Your task to perform on an android device: Open Google Maps Image 0: 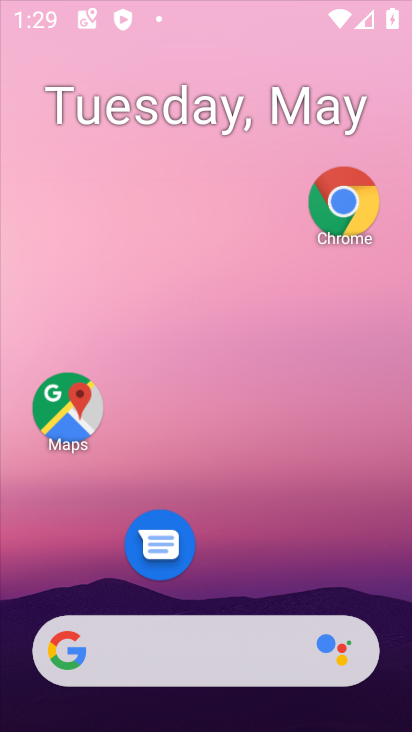
Step 0: click (78, 409)
Your task to perform on an android device: Open Google Maps Image 1: 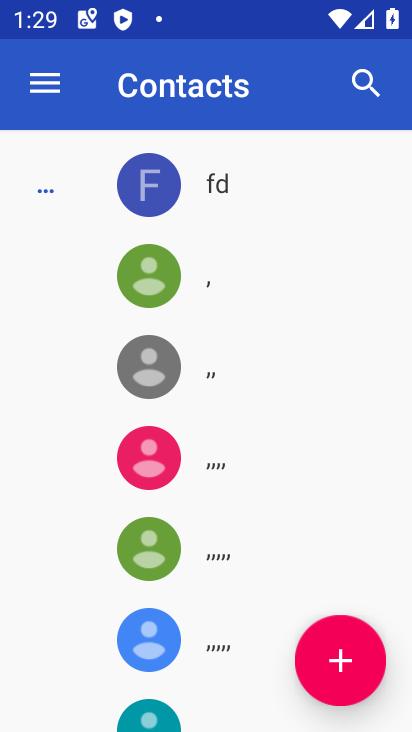
Step 1: press home button
Your task to perform on an android device: Open Google Maps Image 2: 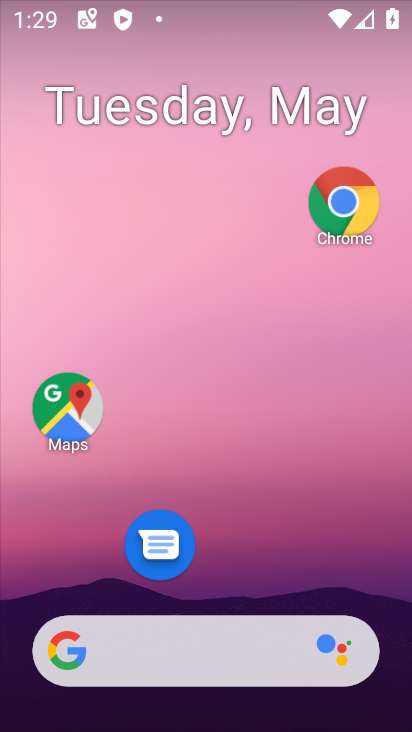
Step 2: click (56, 423)
Your task to perform on an android device: Open Google Maps Image 3: 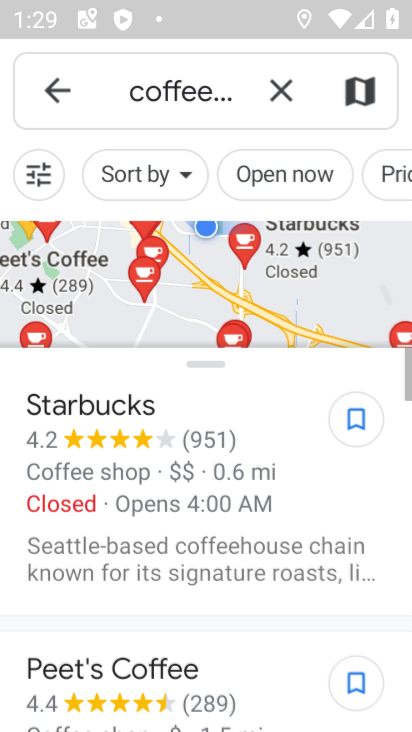
Step 3: task complete